Your task to perform on an android device: find snoozed emails in the gmail app Image 0: 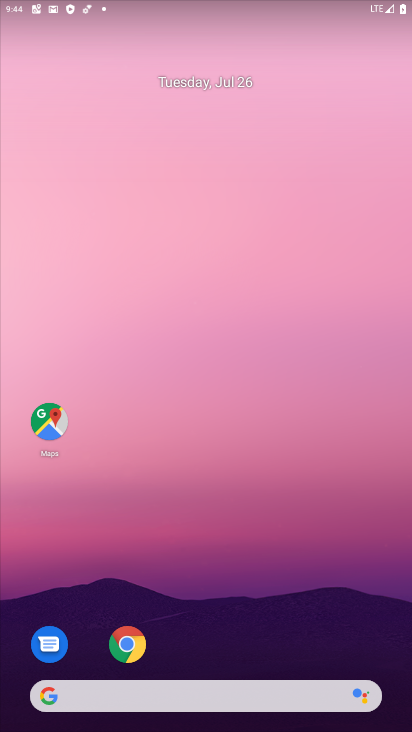
Step 0: drag from (219, 142) to (220, 97)
Your task to perform on an android device: find snoozed emails in the gmail app Image 1: 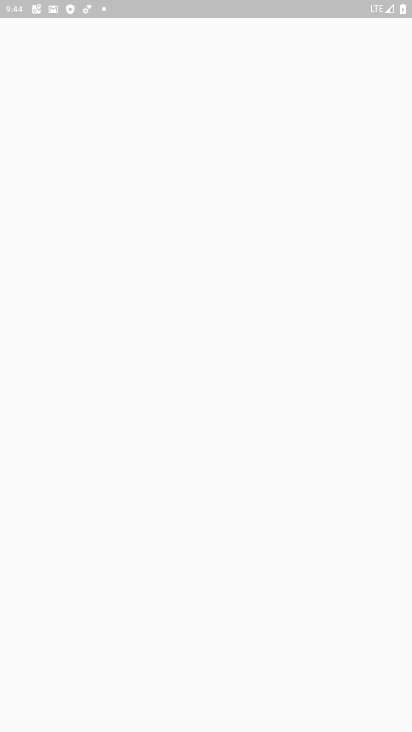
Step 1: press home button
Your task to perform on an android device: find snoozed emails in the gmail app Image 2: 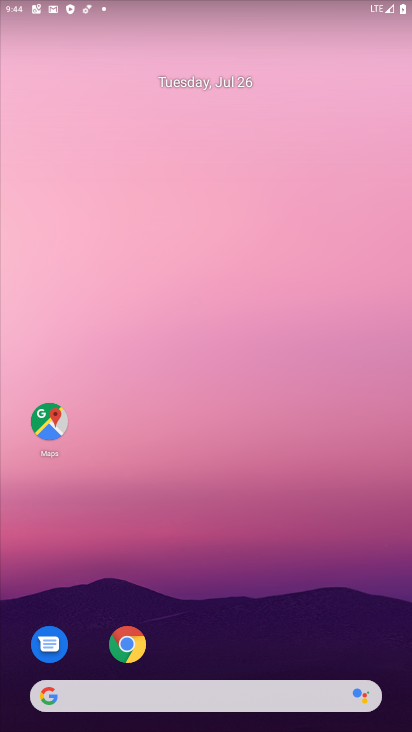
Step 2: drag from (263, 664) to (275, 0)
Your task to perform on an android device: find snoozed emails in the gmail app Image 3: 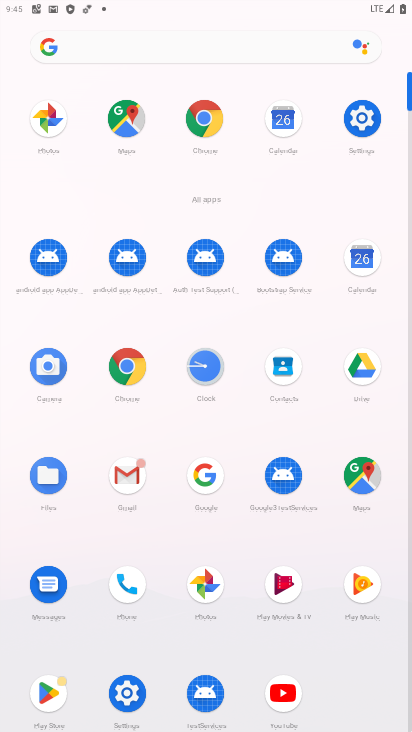
Step 3: click (115, 473)
Your task to perform on an android device: find snoozed emails in the gmail app Image 4: 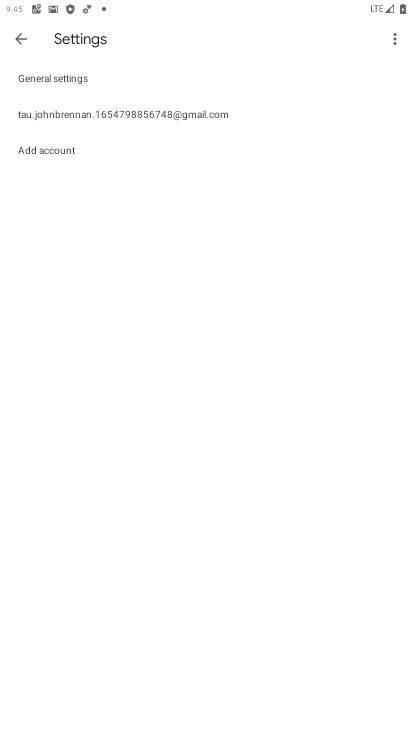
Step 4: click (15, 36)
Your task to perform on an android device: find snoozed emails in the gmail app Image 5: 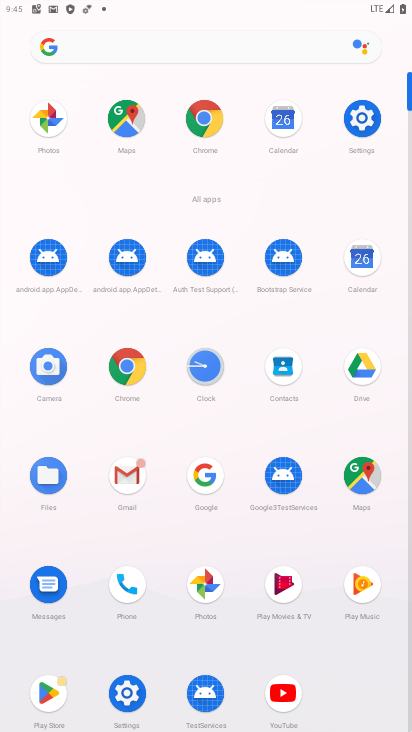
Step 5: click (134, 483)
Your task to perform on an android device: find snoozed emails in the gmail app Image 6: 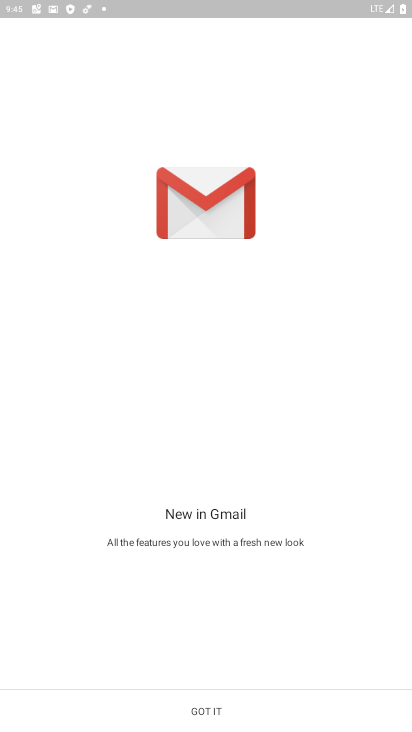
Step 6: click (211, 704)
Your task to perform on an android device: find snoozed emails in the gmail app Image 7: 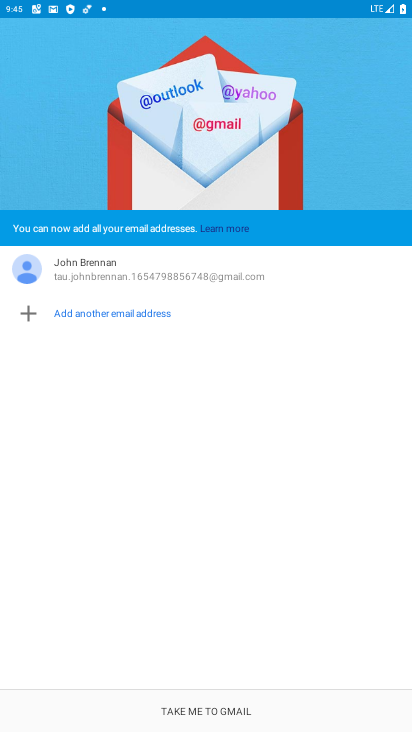
Step 7: click (211, 704)
Your task to perform on an android device: find snoozed emails in the gmail app Image 8: 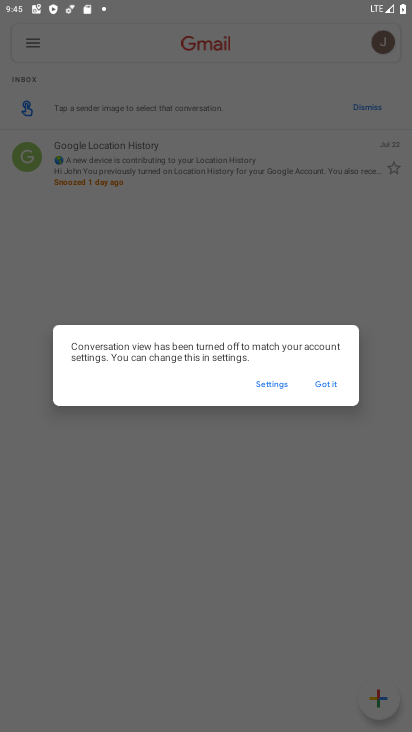
Step 8: click (322, 384)
Your task to perform on an android device: find snoozed emails in the gmail app Image 9: 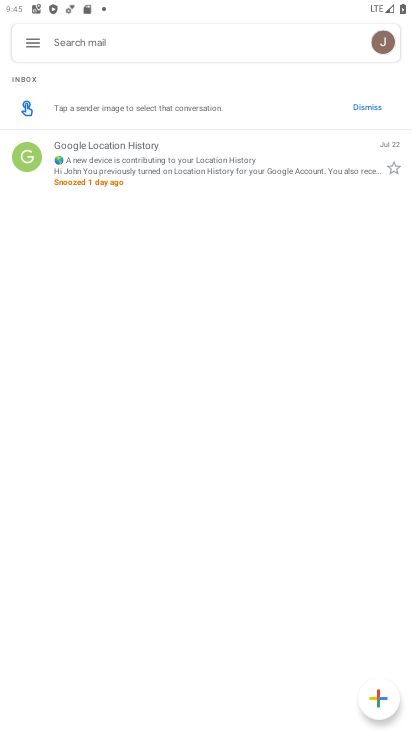
Step 9: click (35, 48)
Your task to perform on an android device: find snoozed emails in the gmail app Image 10: 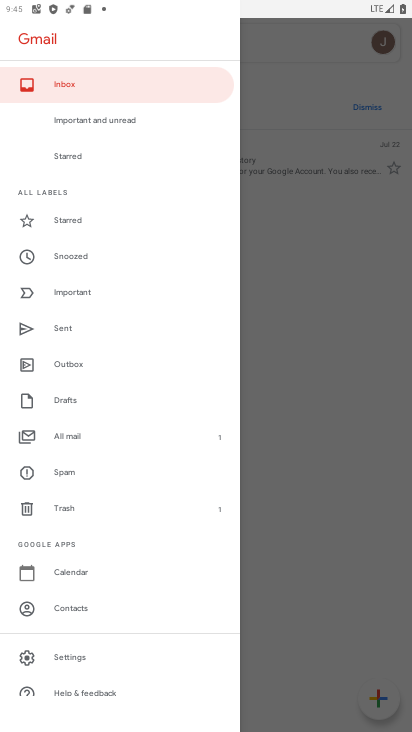
Step 10: click (52, 264)
Your task to perform on an android device: find snoozed emails in the gmail app Image 11: 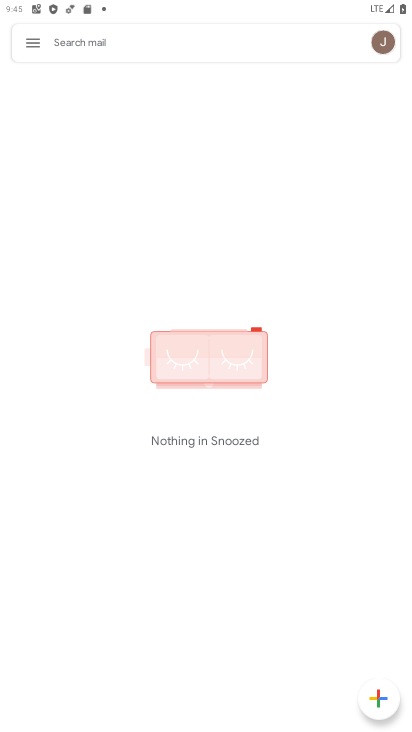
Step 11: task complete